Your task to perform on an android device: Go to Google maps Image 0: 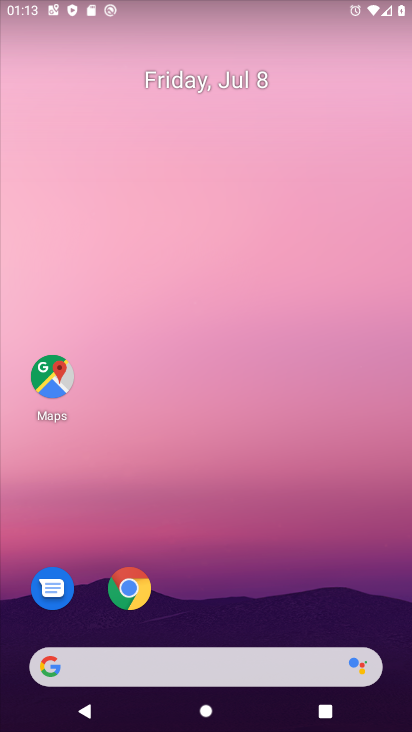
Step 0: drag from (209, 592) to (221, 177)
Your task to perform on an android device: Go to Google maps Image 1: 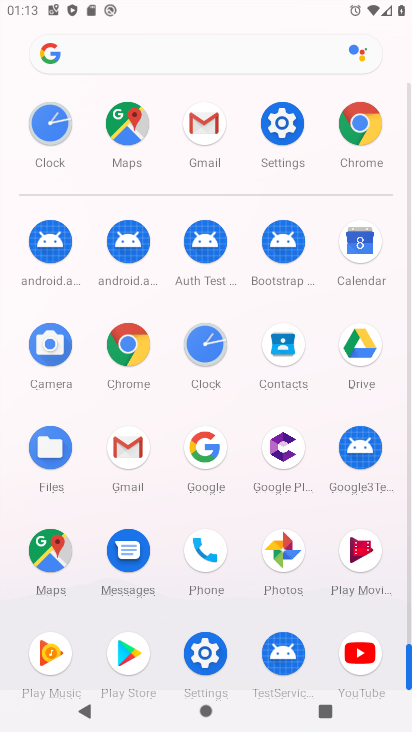
Step 1: click (33, 550)
Your task to perform on an android device: Go to Google maps Image 2: 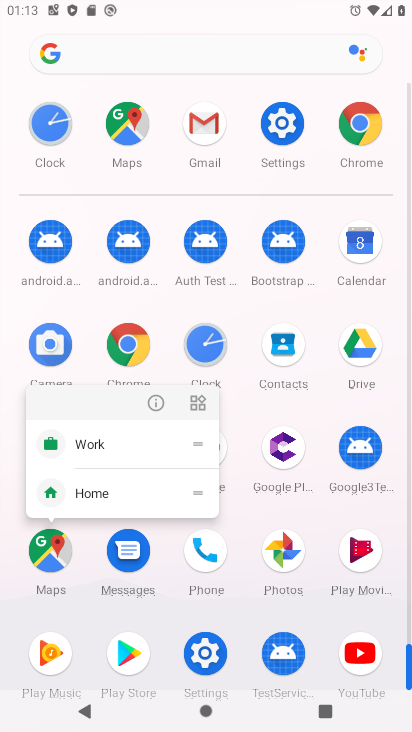
Step 2: click (155, 396)
Your task to perform on an android device: Go to Google maps Image 3: 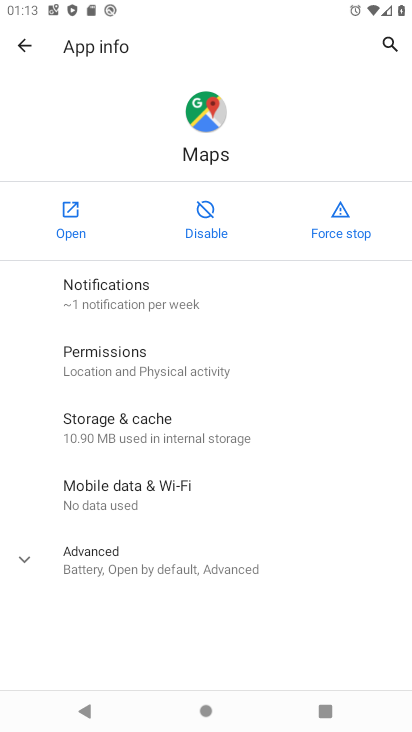
Step 3: click (59, 218)
Your task to perform on an android device: Go to Google maps Image 4: 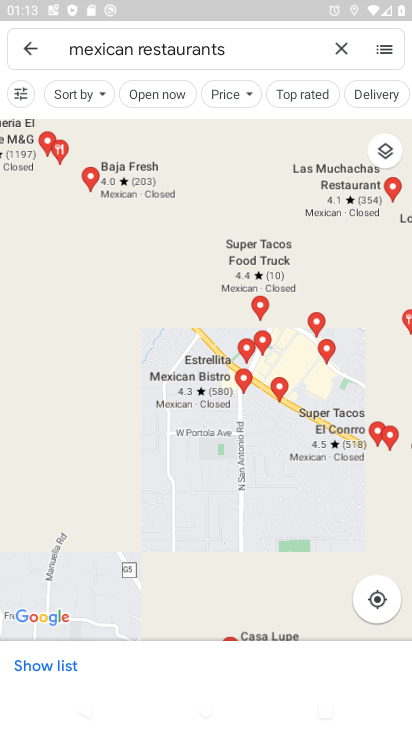
Step 4: task complete